Your task to perform on an android device: Open Android settings Image 0: 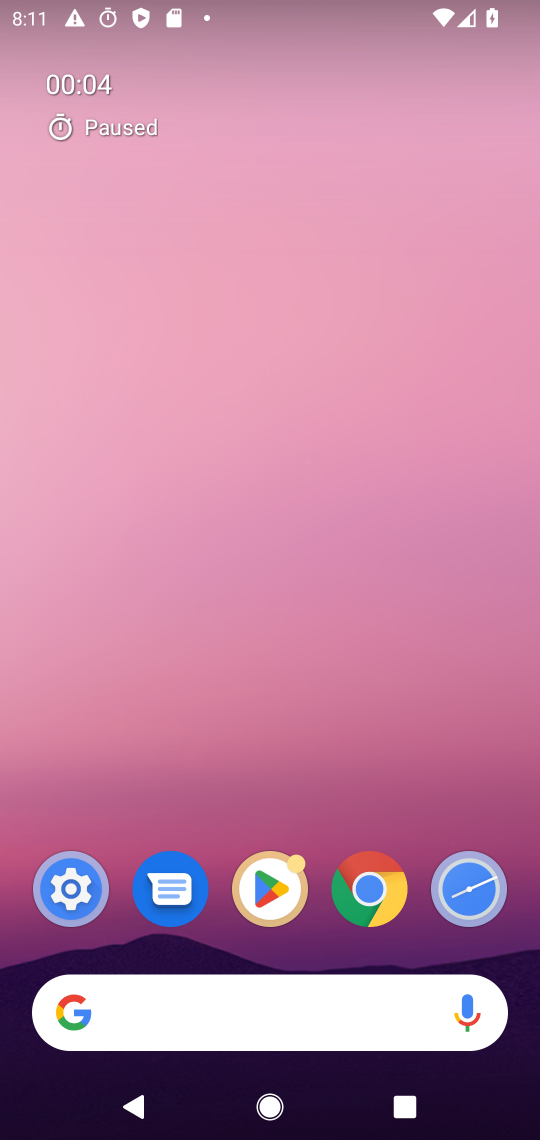
Step 0: click (72, 875)
Your task to perform on an android device: Open Android settings Image 1: 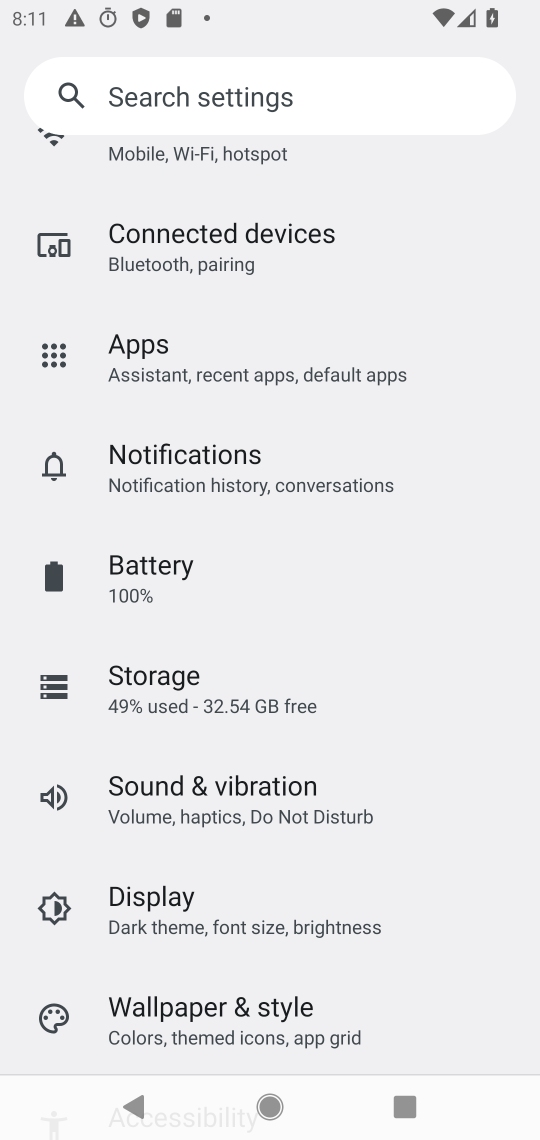
Step 1: drag from (342, 795) to (331, 454)
Your task to perform on an android device: Open Android settings Image 2: 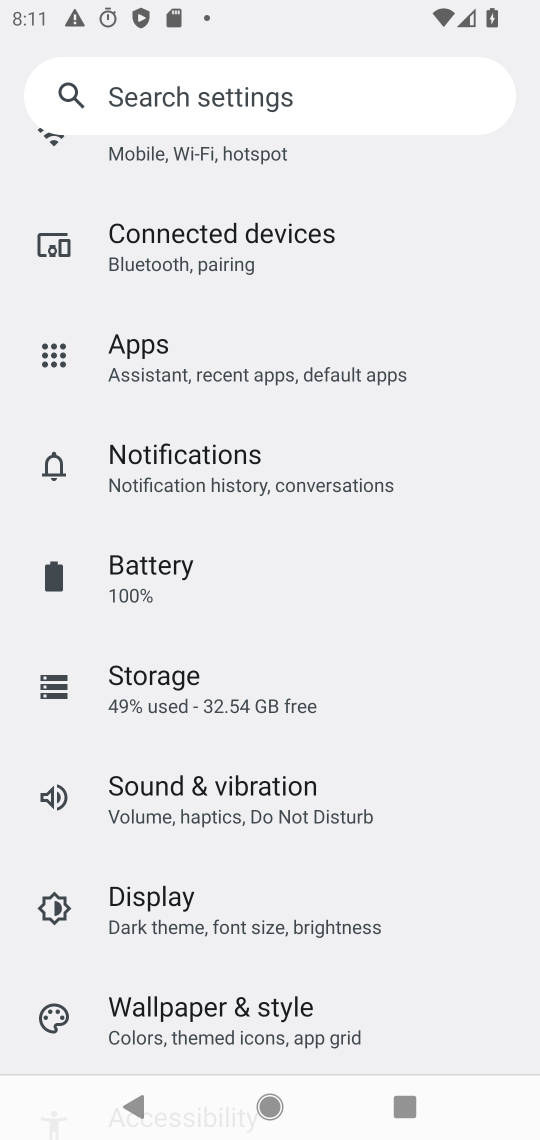
Step 2: drag from (272, 768) to (272, 20)
Your task to perform on an android device: Open Android settings Image 3: 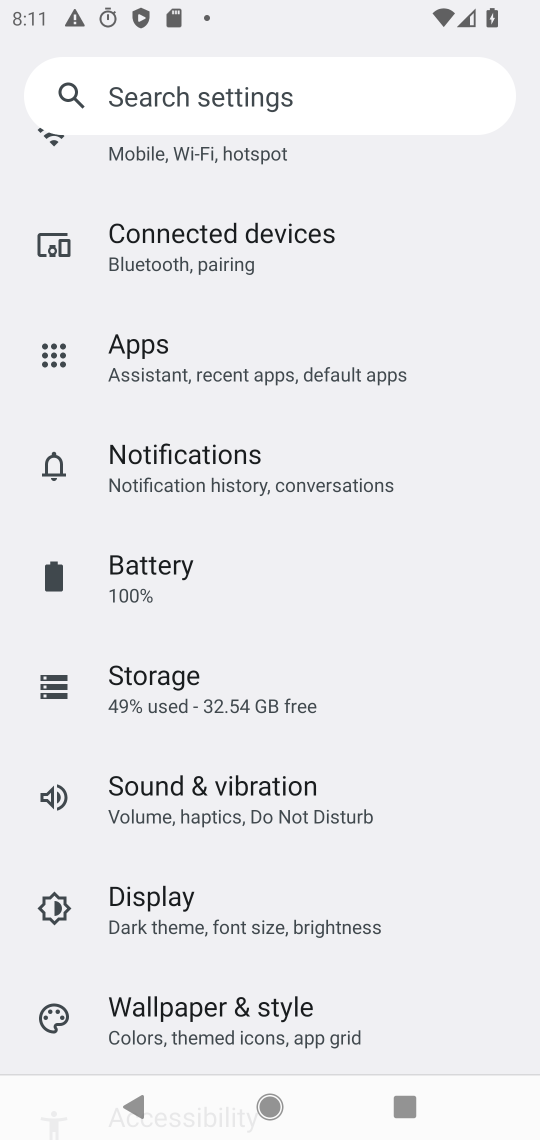
Step 3: drag from (221, 998) to (221, 366)
Your task to perform on an android device: Open Android settings Image 4: 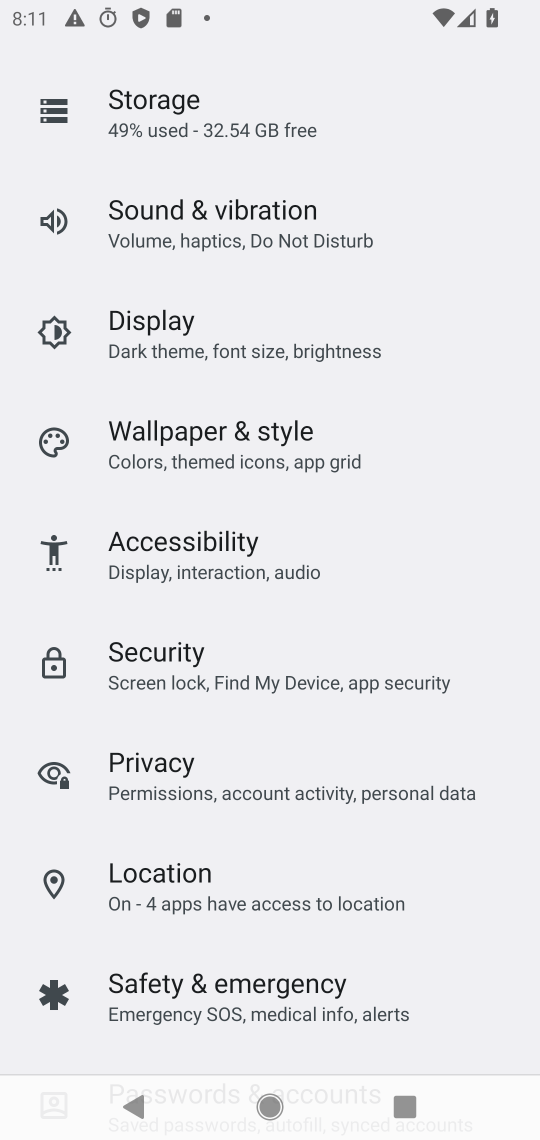
Step 4: drag from (214, 611) to (214, 219)
Your task to perform on an android device: Open Android settings Image 5: 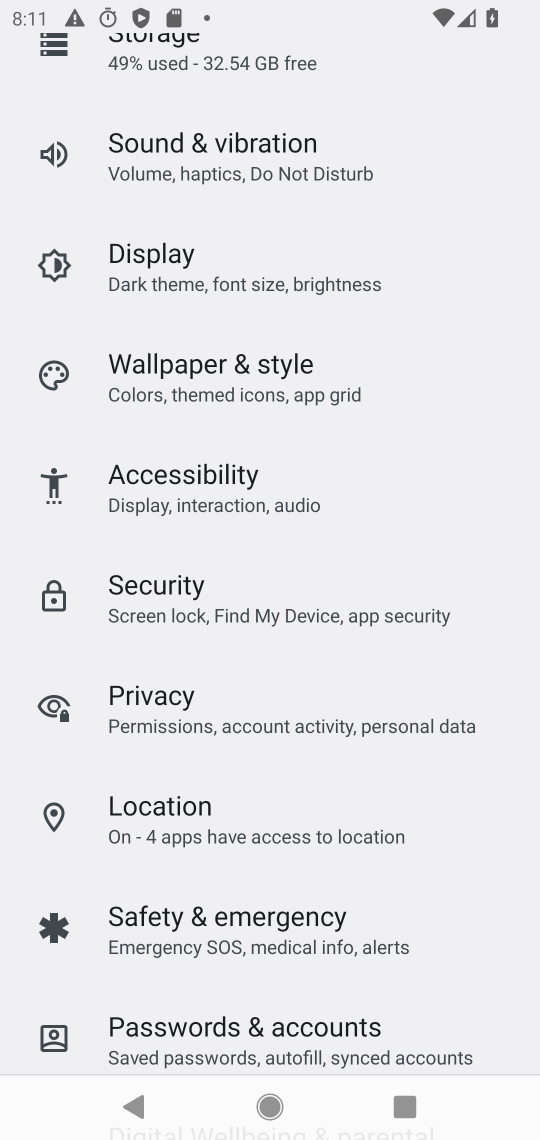
Step 5: drag from (269, 988) to (255, 337)
Your task to perform on an android device: Open Android settings Image 6: 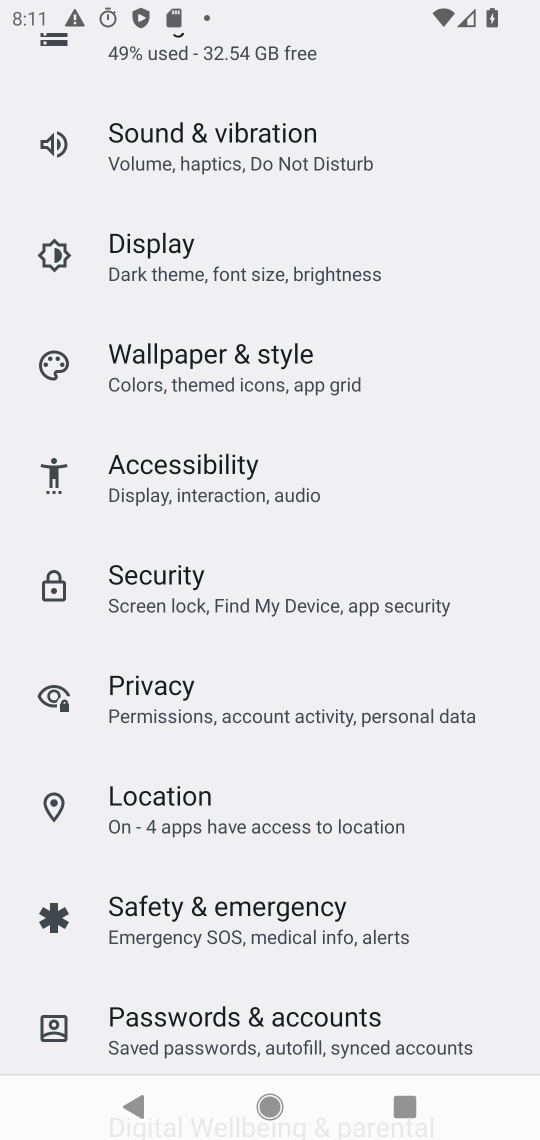
Step 6: drag from (258, 976) to (258, 454)
Your task to perform on an android device: Open Android settings Image 7: 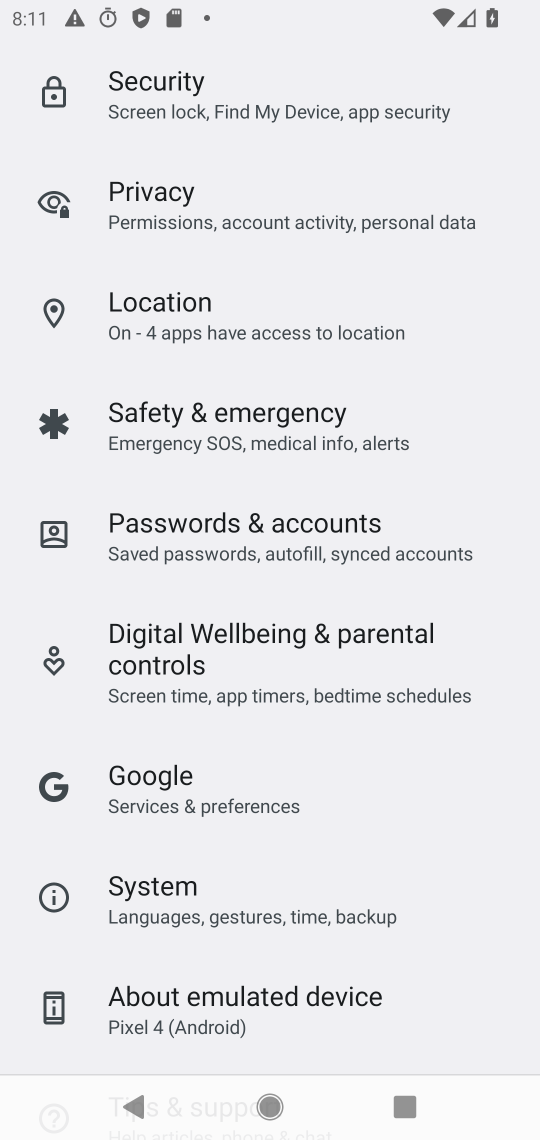
Step 7: click (199, 1031)
Your task to perform on an android device: Open Android settings Image 8: 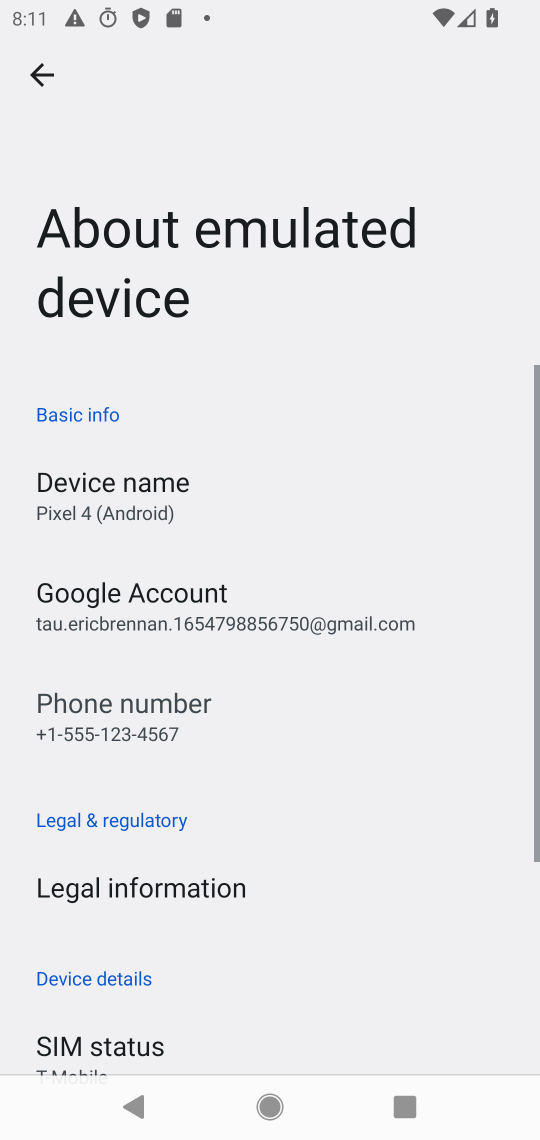
Step 8: drag from (210, 703) to (221, 298)
Your task to perform on an android device: Open Android settings Image 9: 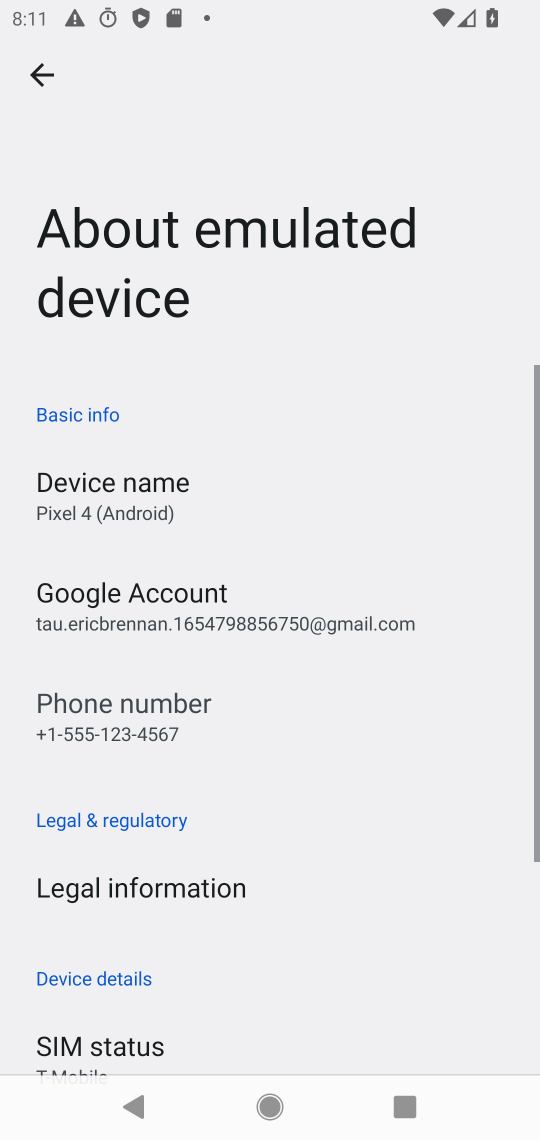
Step 9: drag from (184, 831) to (191, 245)
Your task to perform on an android device: Open Android settings Image 10: 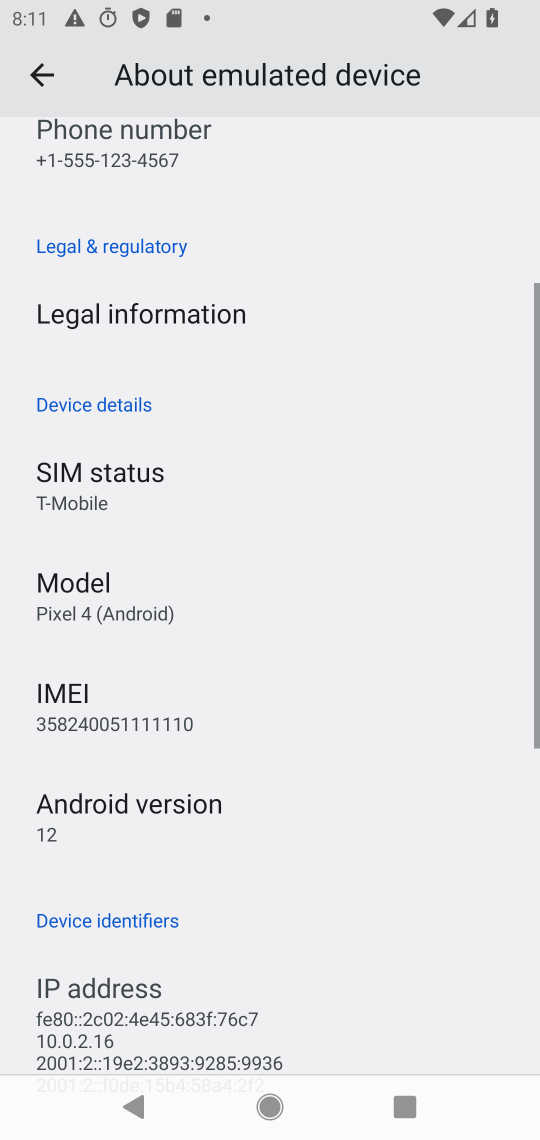
Step 10: click (114, 834)
Your task to perform on an android device: Open Android settings Image 11: 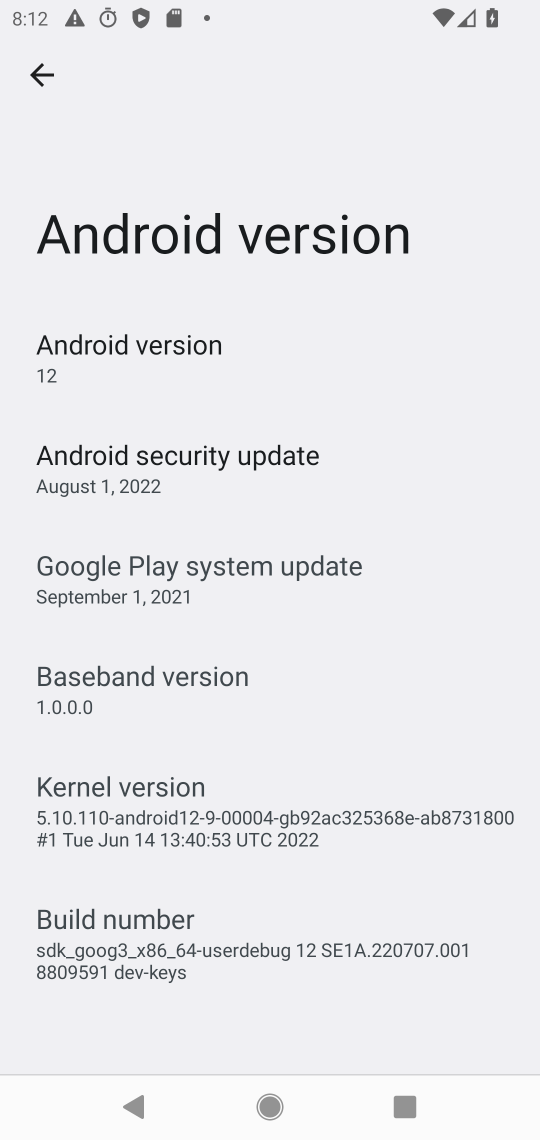
Step 11: task complete